Your task to perform on an android device: Check the settings for the Twitter app Image 0: 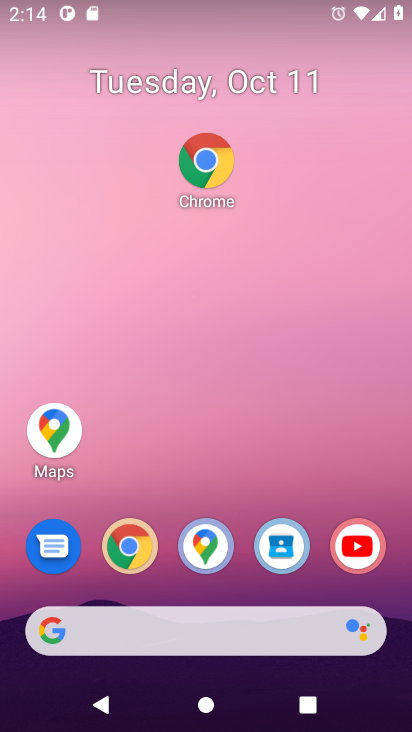
Step 0: drag from (260, 606) to (286, 279)
Your task to perform on an android device: Check the settings for the Twitter app Image 1: 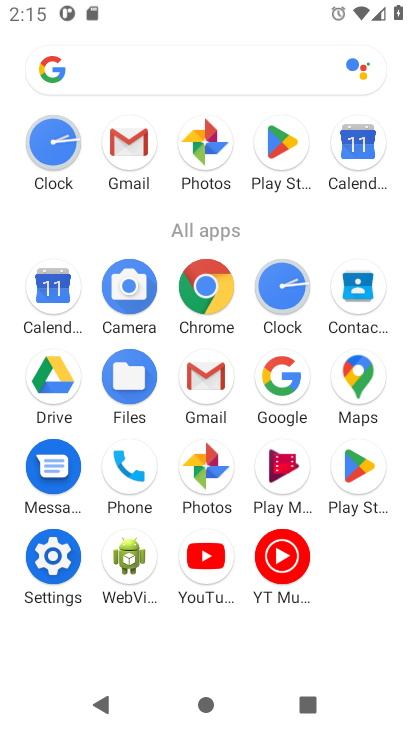
Step 1: click (50, 552)
Your task to perform on an android device: Check the settings for the Twitter app Image 2: 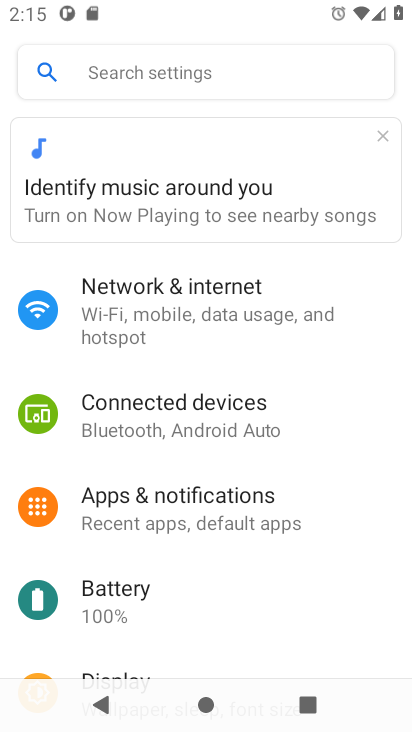
Step 2: click (219, 520)
Your task to perform on an android device: Check the settings for the Twitter app Image 3: 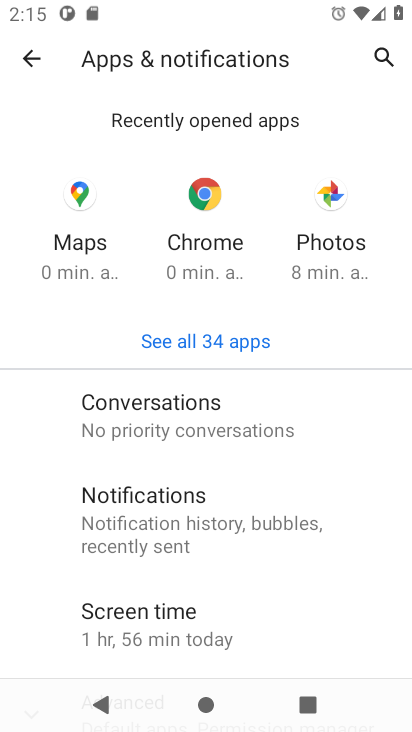
Step 3: click (204, 344)
Your task to perform on an android device: Check the settings for the Twitter app Image 4: 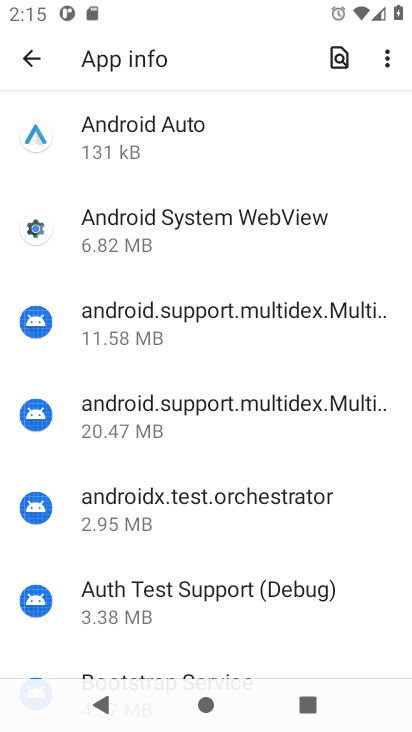
Step 4: task complete